Your task to perform on an android device: set the timer Image 0: 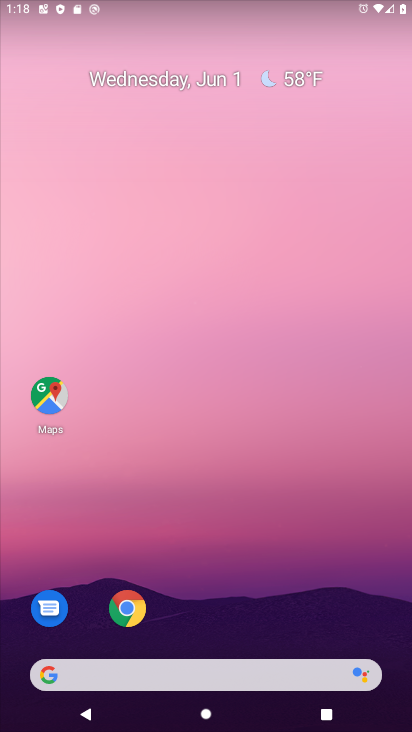
Step 0: drag from (318, 586) to (290, 86)
Your task to perform on an android device: set the timer Image 1: 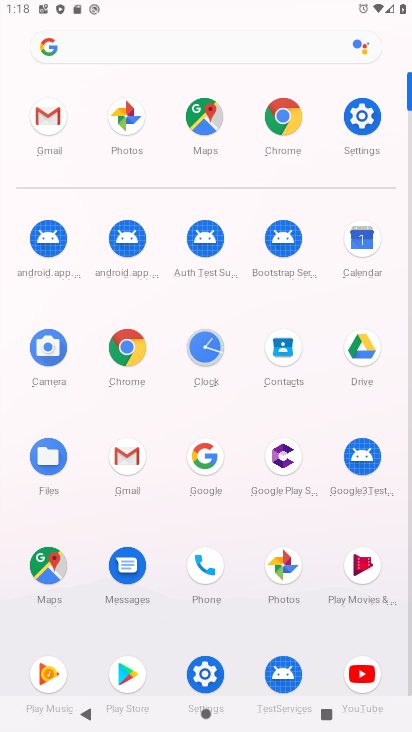
Step 1: click (205, 347)
Your task to perform on an android device: set the timer Image 2: 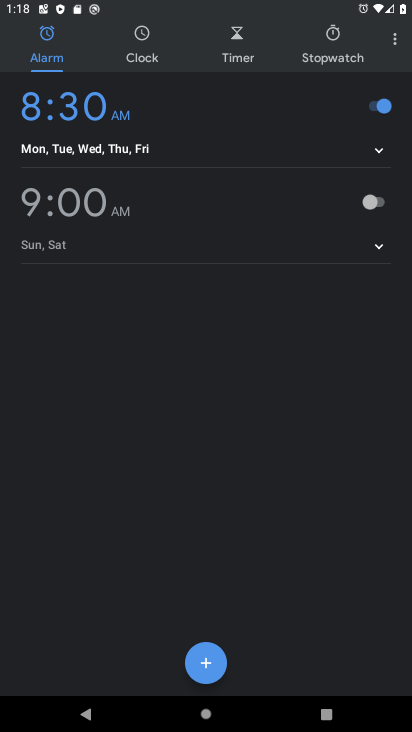
Step 2: click (238, 33)
Your task to perform on an android device: set the timer Image 3: 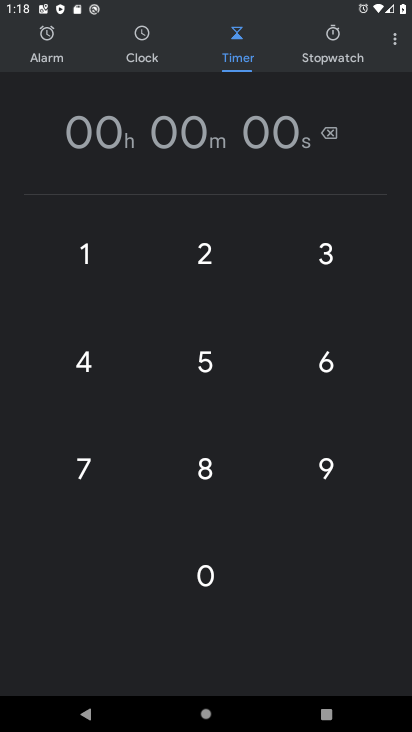
Step 3: click (82, 244)
Your task to perform on an android device: set the timer Image 4: 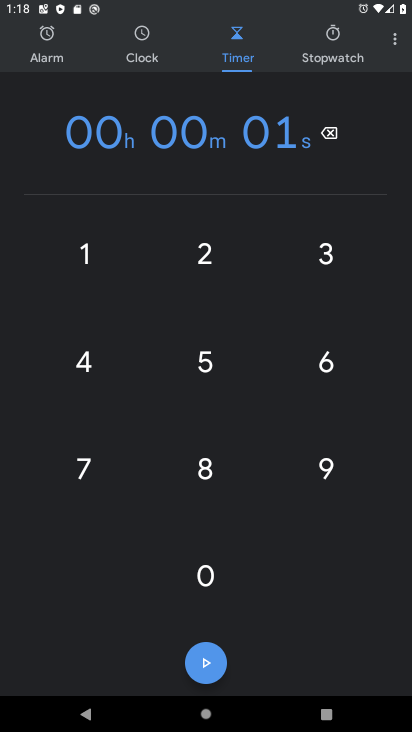
Step 4: click (322, 251)
Your task to perform on an android device: set the timer Image 5: 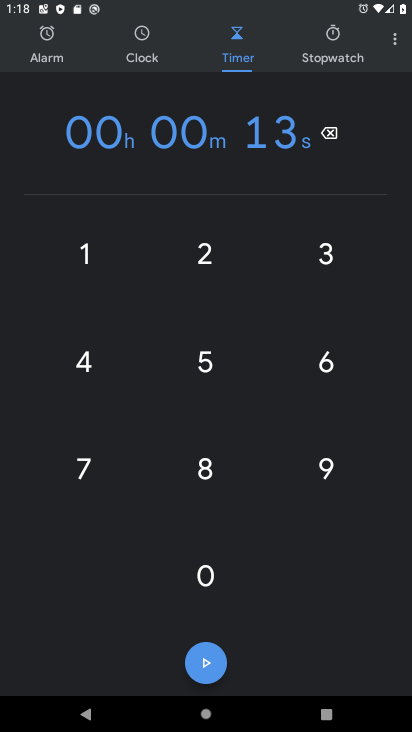
Step 5: click (205, 575)
Your task to perform on an android device: set the timer Image 6: 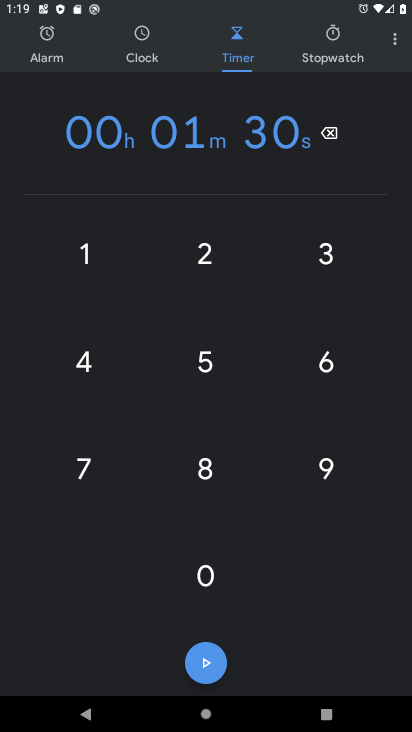
Step 6: click (209, 357)
Your task to perform on an android device: set the timer Image 7: 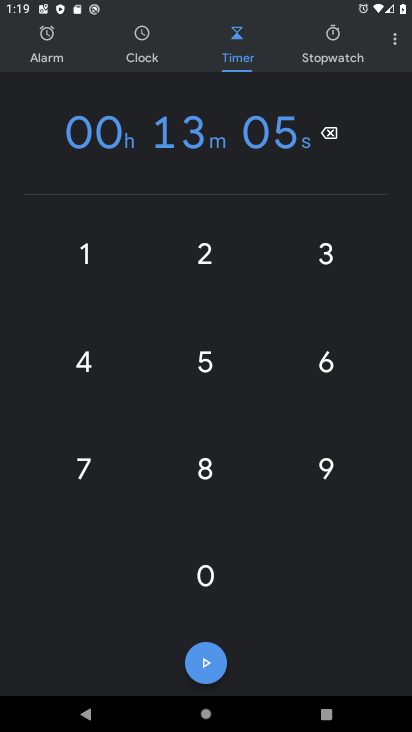
Step 7: click (335, 470)
Your task to perform on an android device: set the timer Image 8: 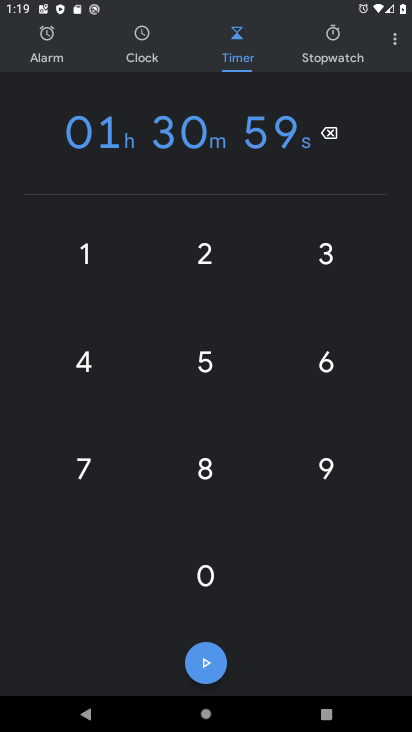
Step 8: click (213, 654)
Your task to perform on an android device: set the timer Image 9: 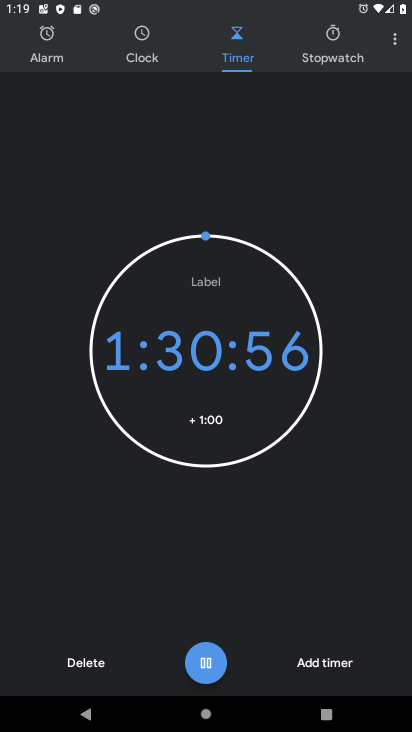
Step 9: task complete